Your task to perform on an android device: Open CNN.com Image 0: 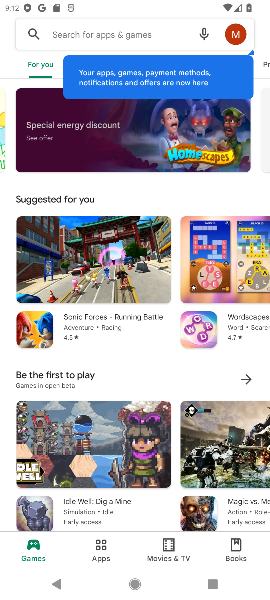
Step 0: press home button
Your task to perform on an android device: Open CNN.com Image 1: 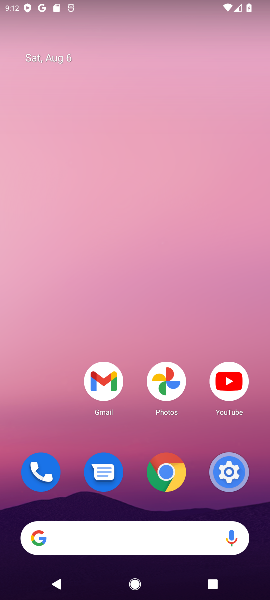
Step 1: click (176, 469)
Your task to perform on an android device: Open CNN.com Image 2: 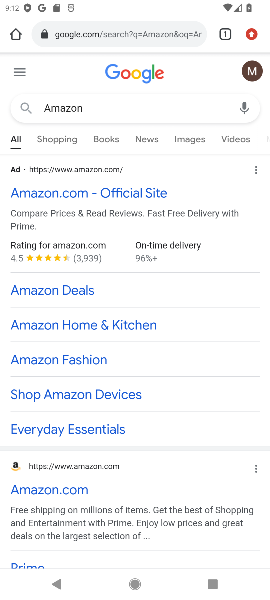
Step 2: click (204, 31)
Your task to perform on an android device: Open CNN.com Image 3: 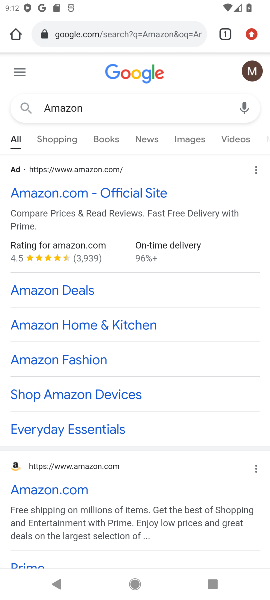
Step 3: click (183, 31)
Your task to perform on an android device: Open CNN.com Image 4: 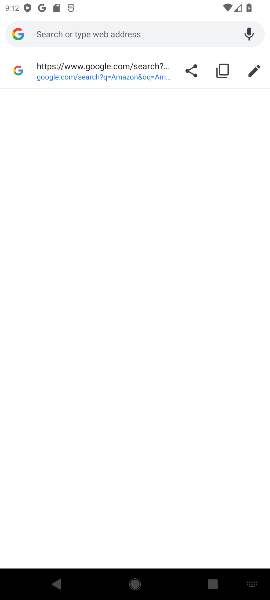
Step 4: type "CNN.com"
Your task to perform on an android device: Open CNN.com Image 5: 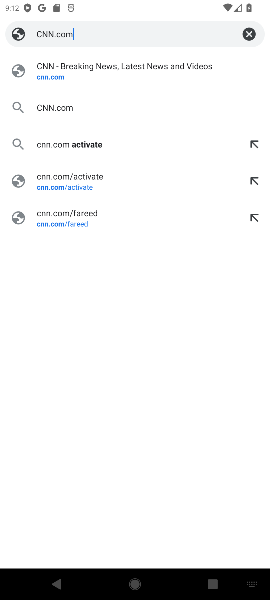
Step 5: click (53, 105)
Your task to perform on an android device: Open CNN.com Image 6: 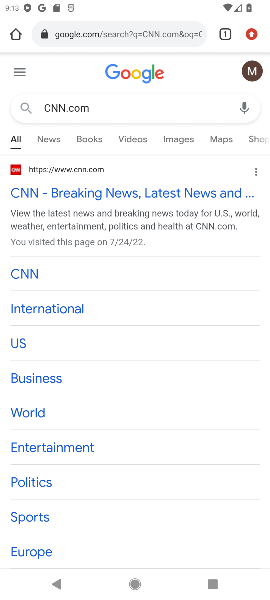
Step 6: task complete